Your task to perform on an android device: Open Maps and search for coffee Image 0: 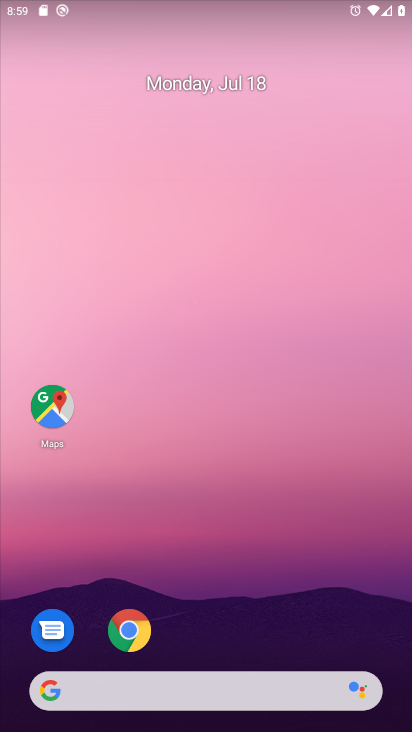
Step 0: drag from (204, 596) to (165, 423)
Your task to perform on an android device: Open Maps and search for coffee Image 1: 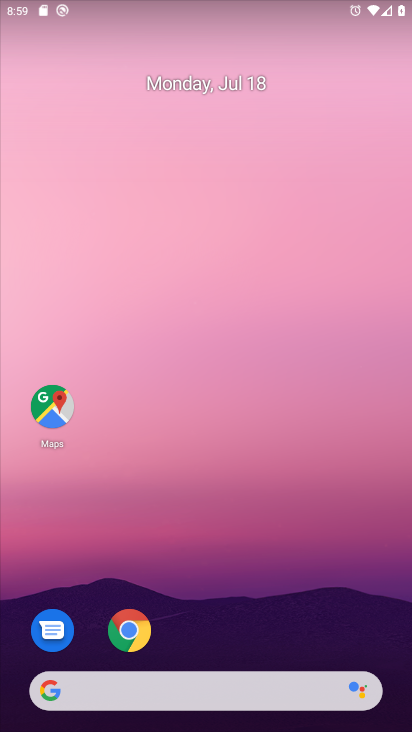
Step 1: click (60, 401)
Your task to perform on an android device: Open Maps and search for coffee Image 2: 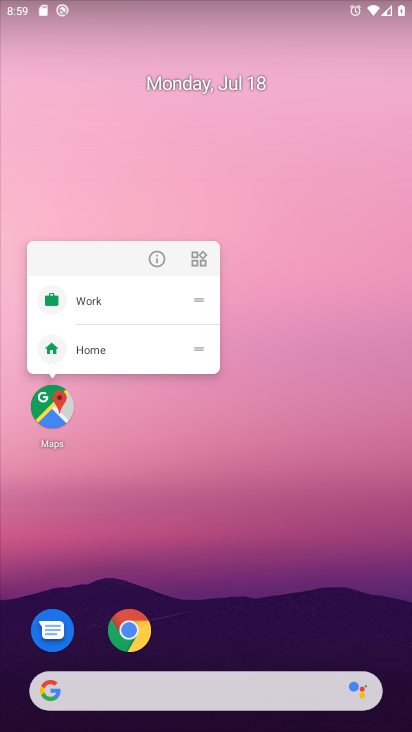
Step 2: click (60, 401)
Your task to perform on an android device: Open Maps and search for coffee Image 3: 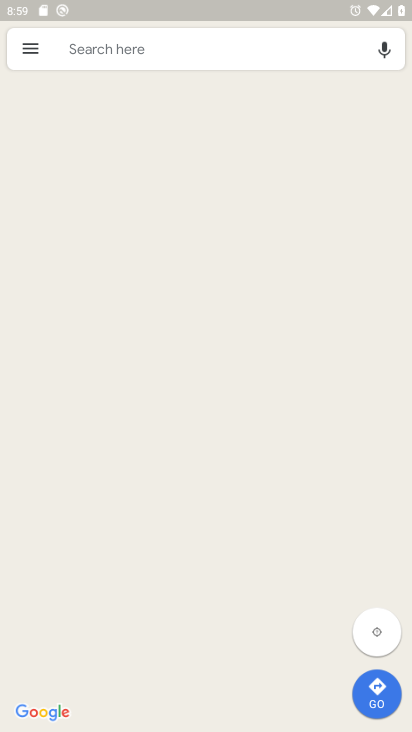
Step 3: click (119, 59)
Your task to perform on an android device: Open Maps and search for coffee Image 4: 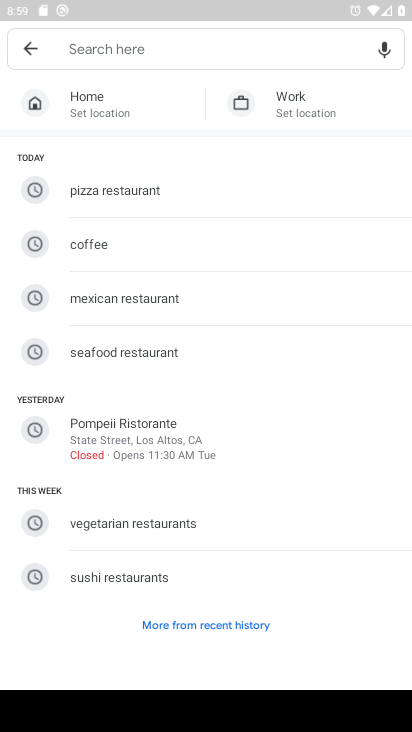
Step 4: type "coffee"
Your task to perform on an android device: Open Maps and search for coffee Image 5: 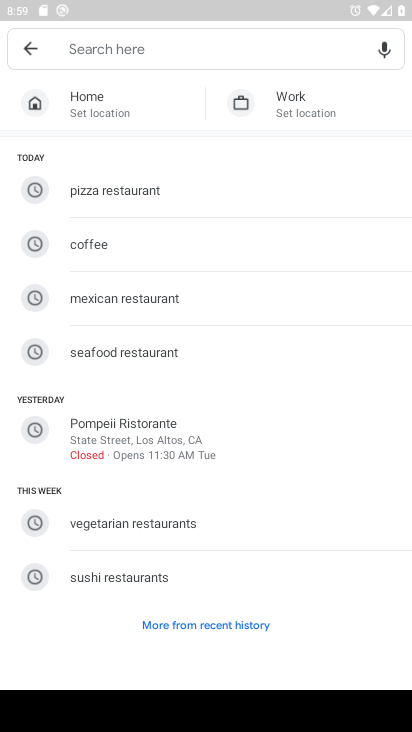
Step 5: click (105, 255)
Your task to perform on an android device: Open Maps and search for coffee Image 6: 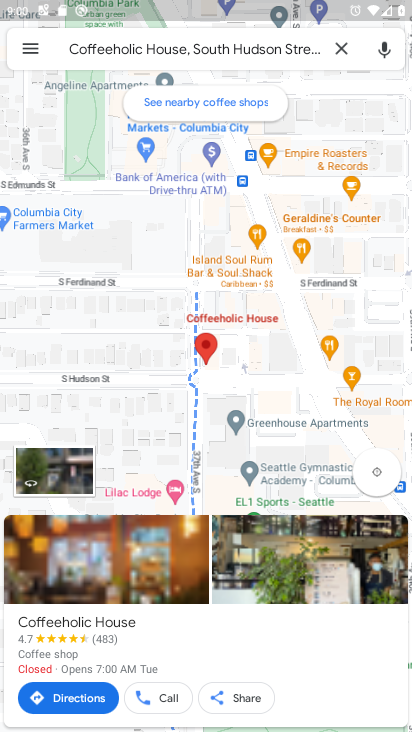
Step 6: task complete